Your task to perform on an android device: Go to ESPN.com Image 0: 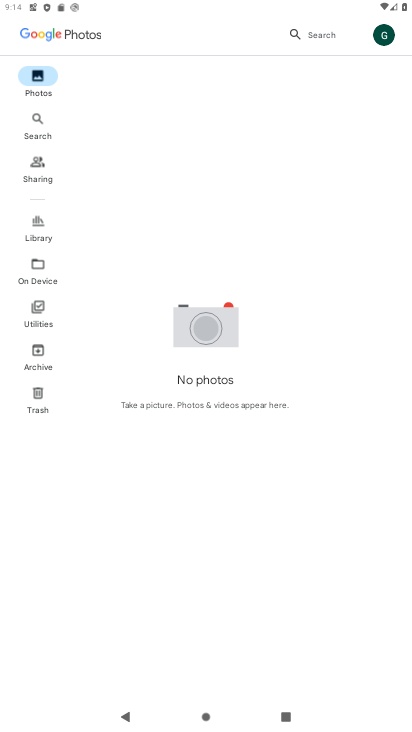
Step 0: press home button
Your task to perform on an android device: Go to ESPN.com Image 1: 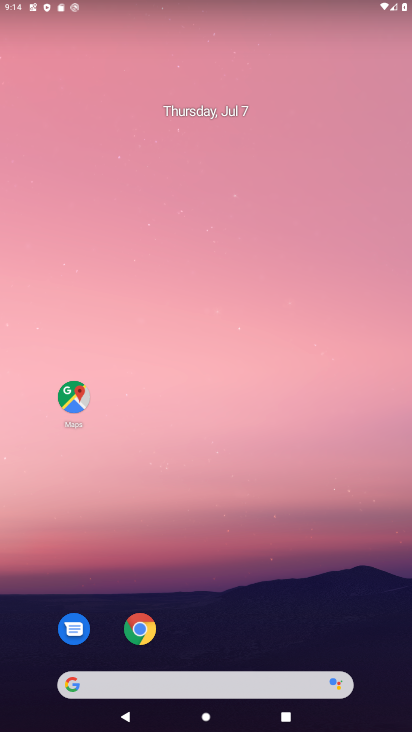
Step 1: click (140, 628)
Your task to perform on an android device: Go to ESPN.com Image 2: 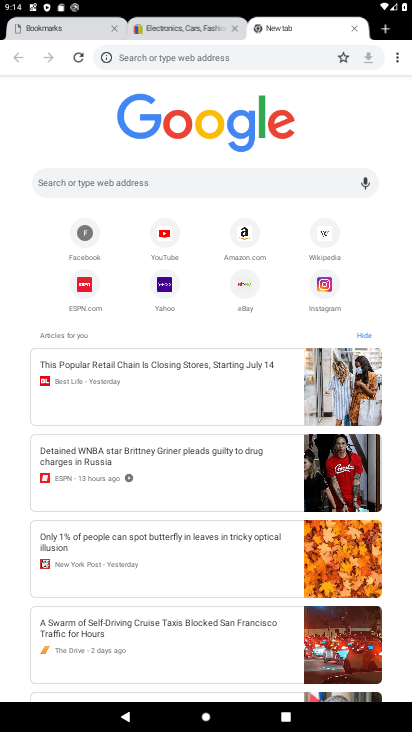
Step 2: click (80, 289)
Your task to perform on an android device: Go to ESPN.com Image 3: 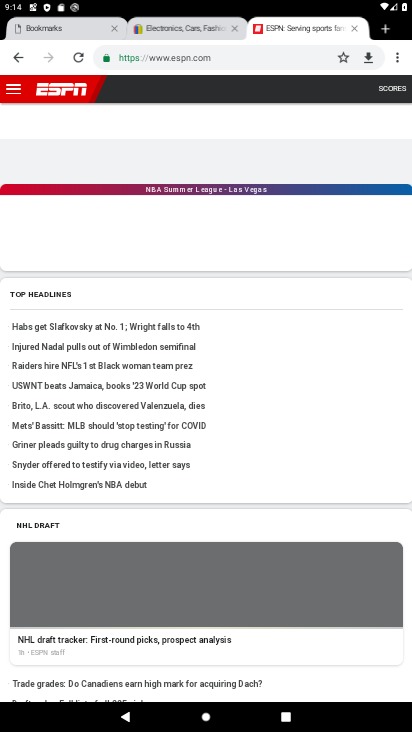
Step 3: task complete